Your task to perform on an android device: check android version Image 0: 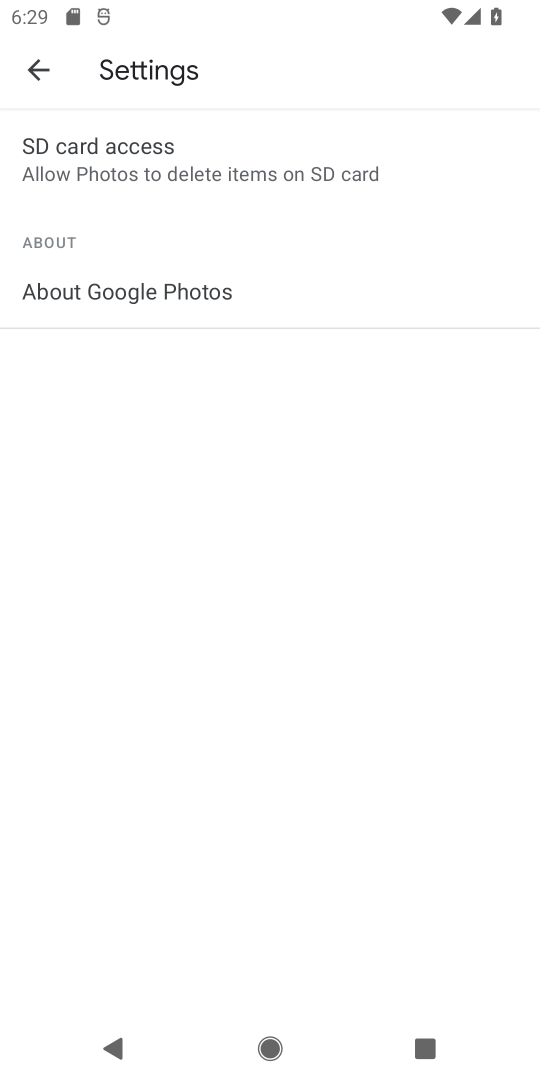
Step 0: press home button
Your task to perform on an android device: check android version Image 1: 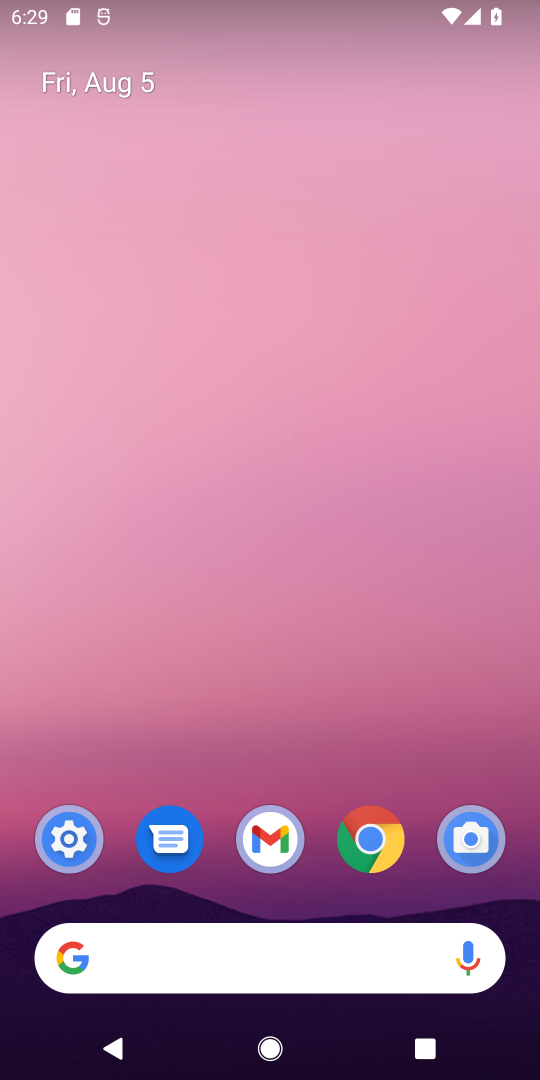
Step 1: click (80, 826)
Your task to perform on an android device: check android version Image 2: 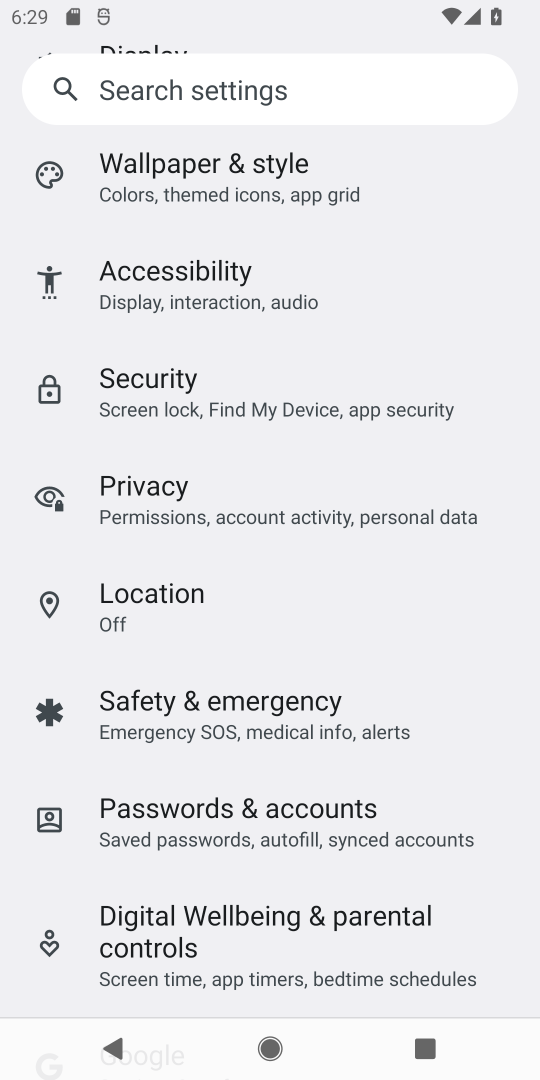
Step 2: drag from (278, 933) to (322, 314)
Your task to perform on an android device: check android version Image 3: 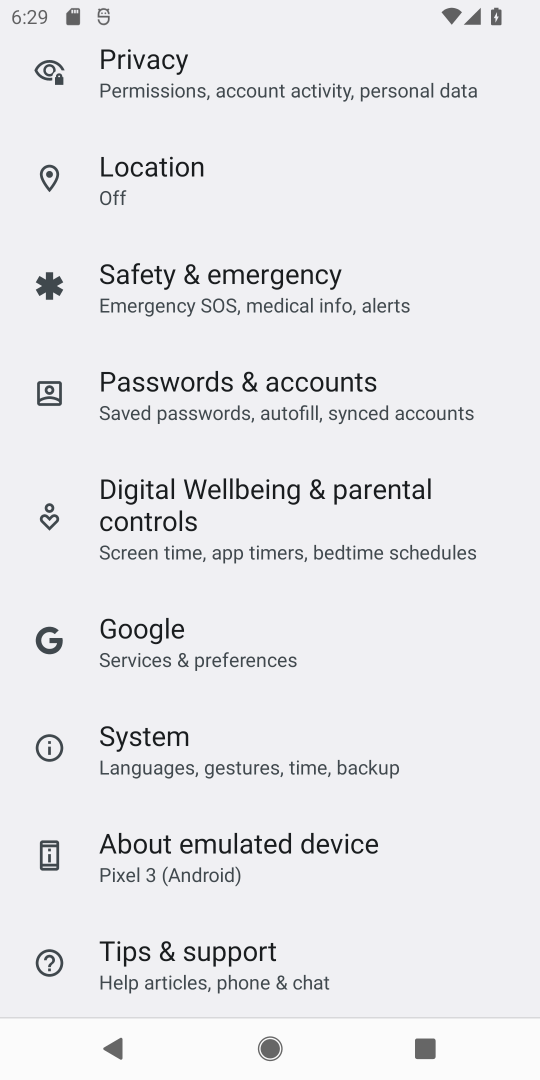
Step 3: drag from (282, 786) to (343, 326)
Your task to perform on an android device: check android version Image 4: 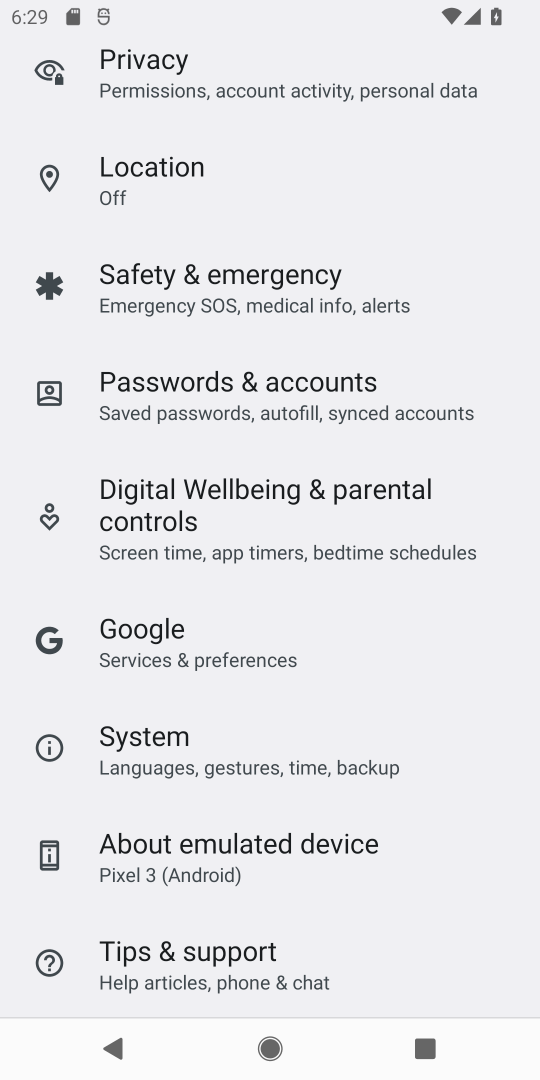
Step 4: click (269, 883)
Your task to perform on an android device: check android version Image 5: 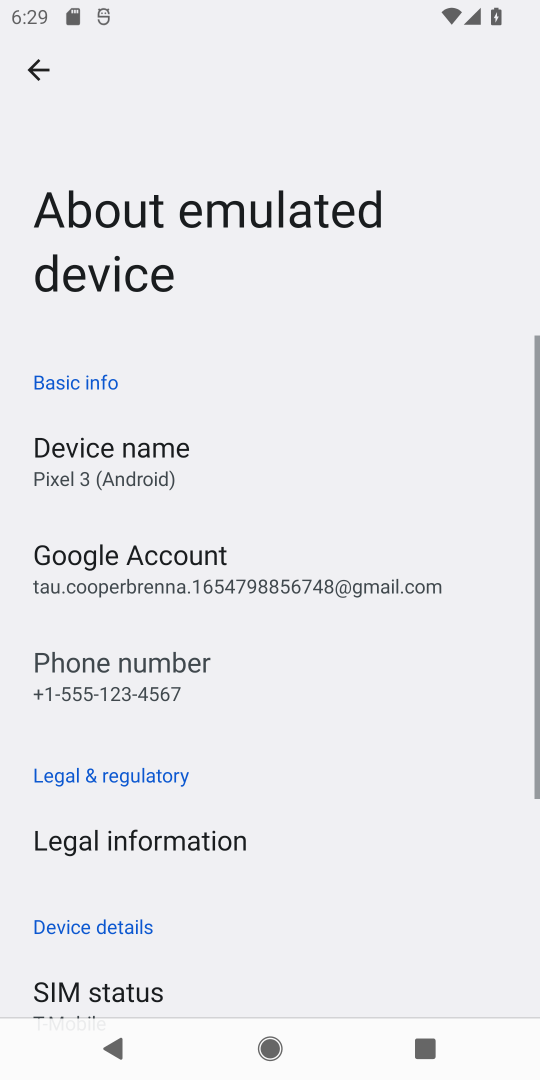
Step 5: drag from (285, 925) to (404, 61)
Your task to perform on an android device: check android version Image 6: 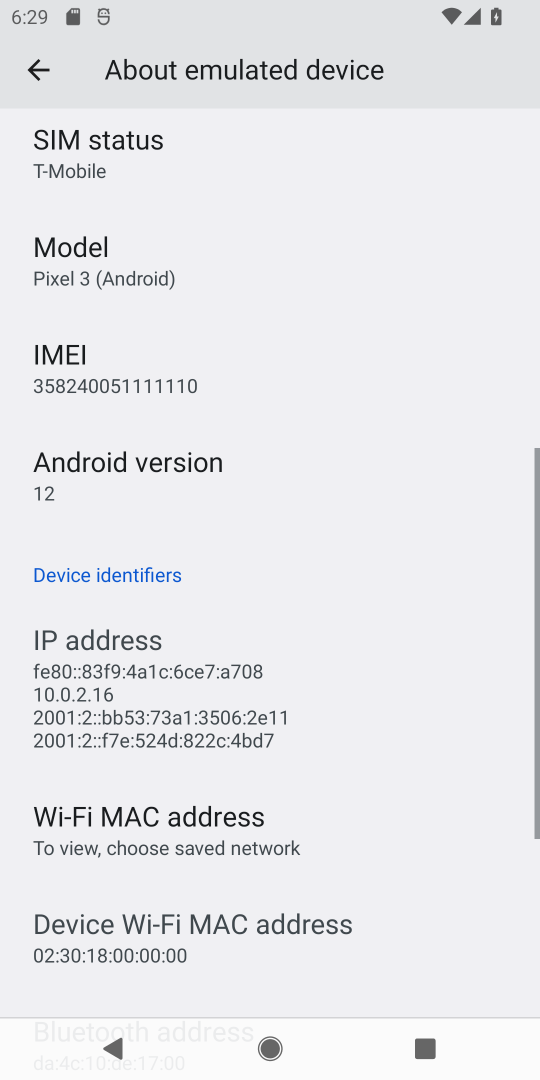
Step 6: click (169, 484)
Your task to perform on an android device: check android version Image 7: 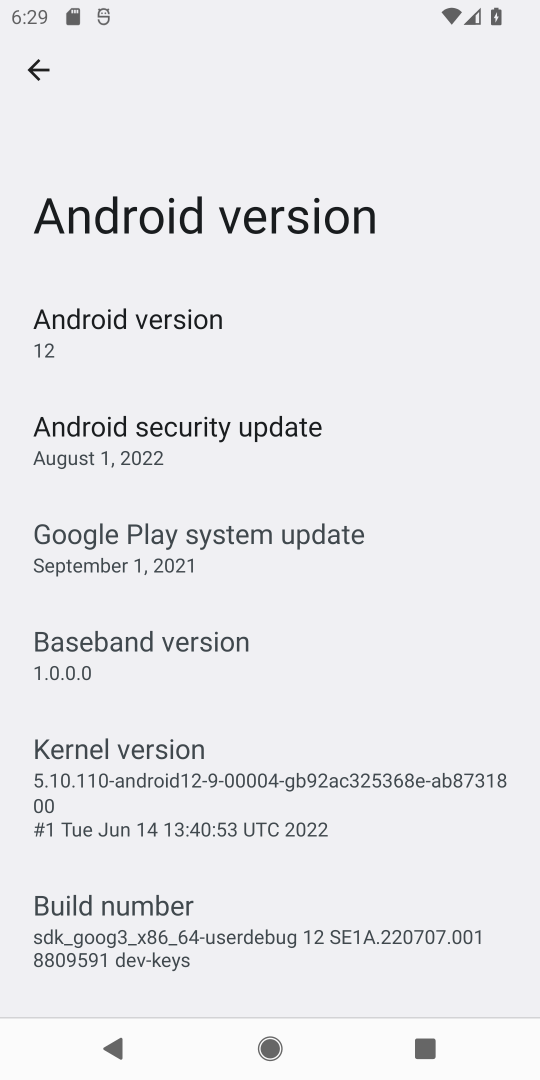
Step 7: task complete